Your task to perform on an android device: Clear the shopping cart on target.com. Image 0: 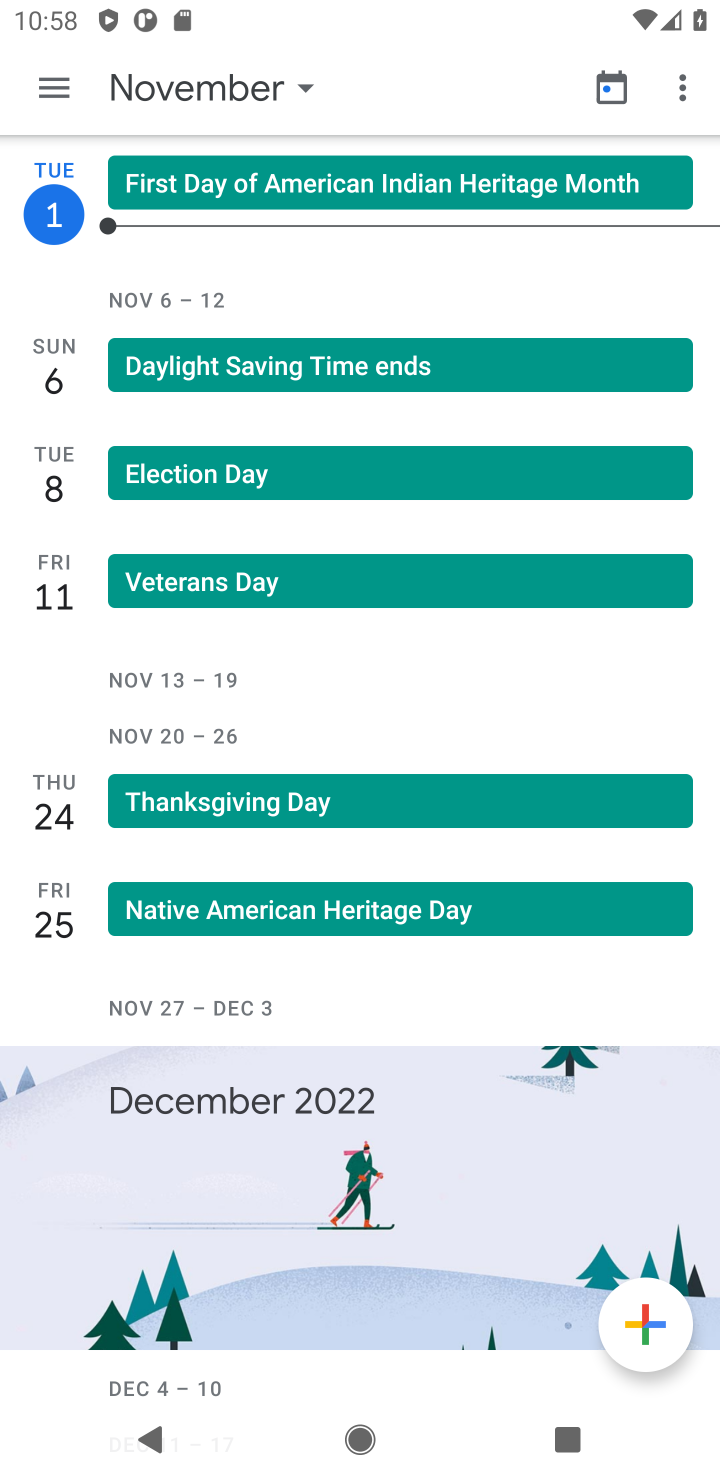
Step 0: press home button
Your task to perform on an android device: Clear the shopping cart on target.com. Image 1: 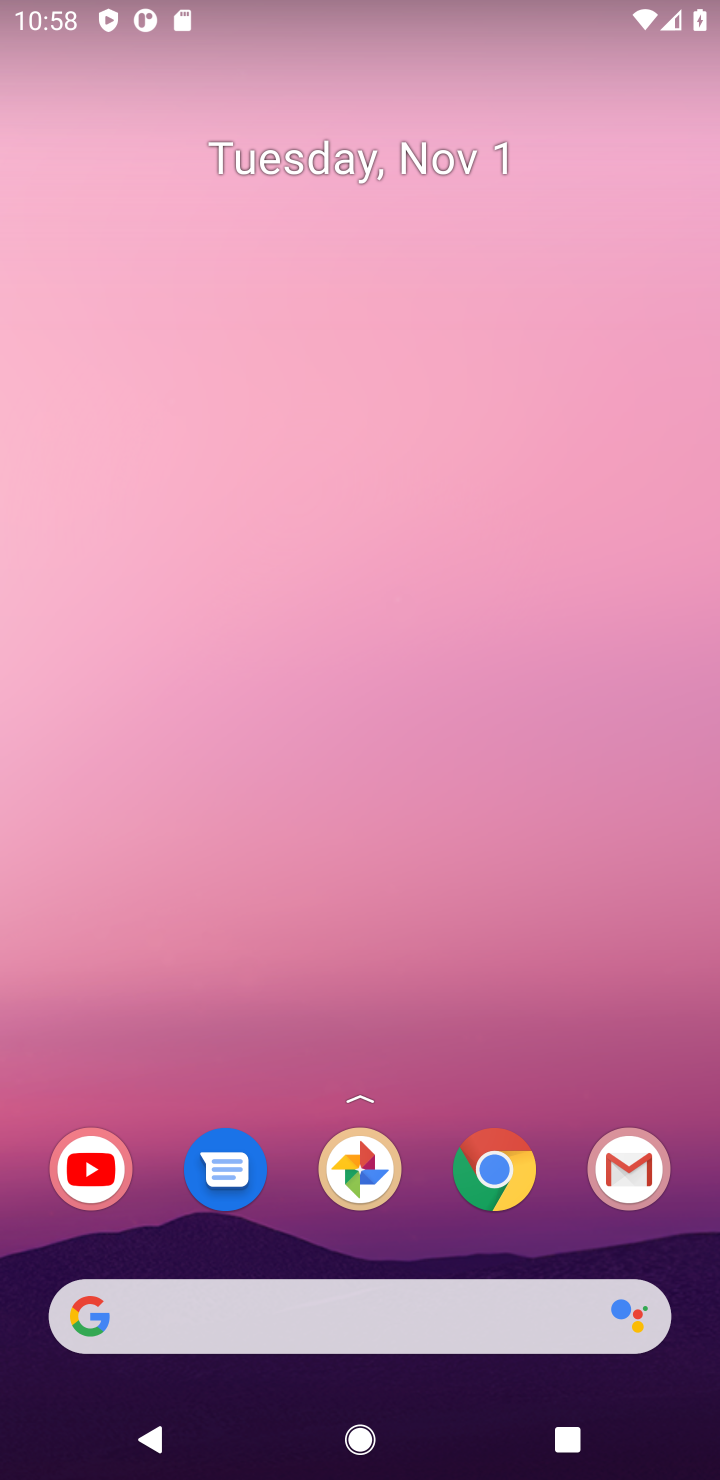
Step 1: click (487, 1179)
Your task to perform on an android device: Clear the shopping cart on target.com. Image 2: 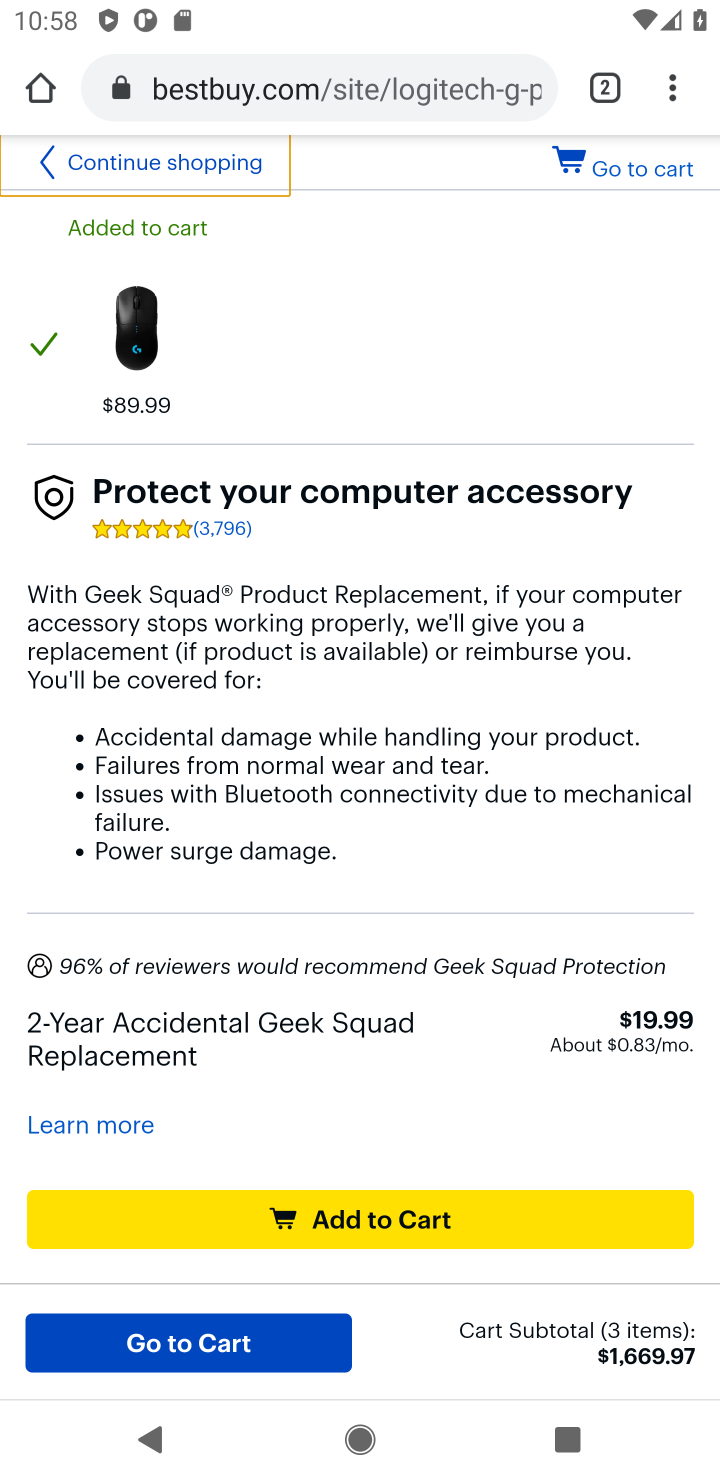
Step 2: click (312, 97)
Your task to perform on an android device: Clear the shopping cart on target.com. Image 3: 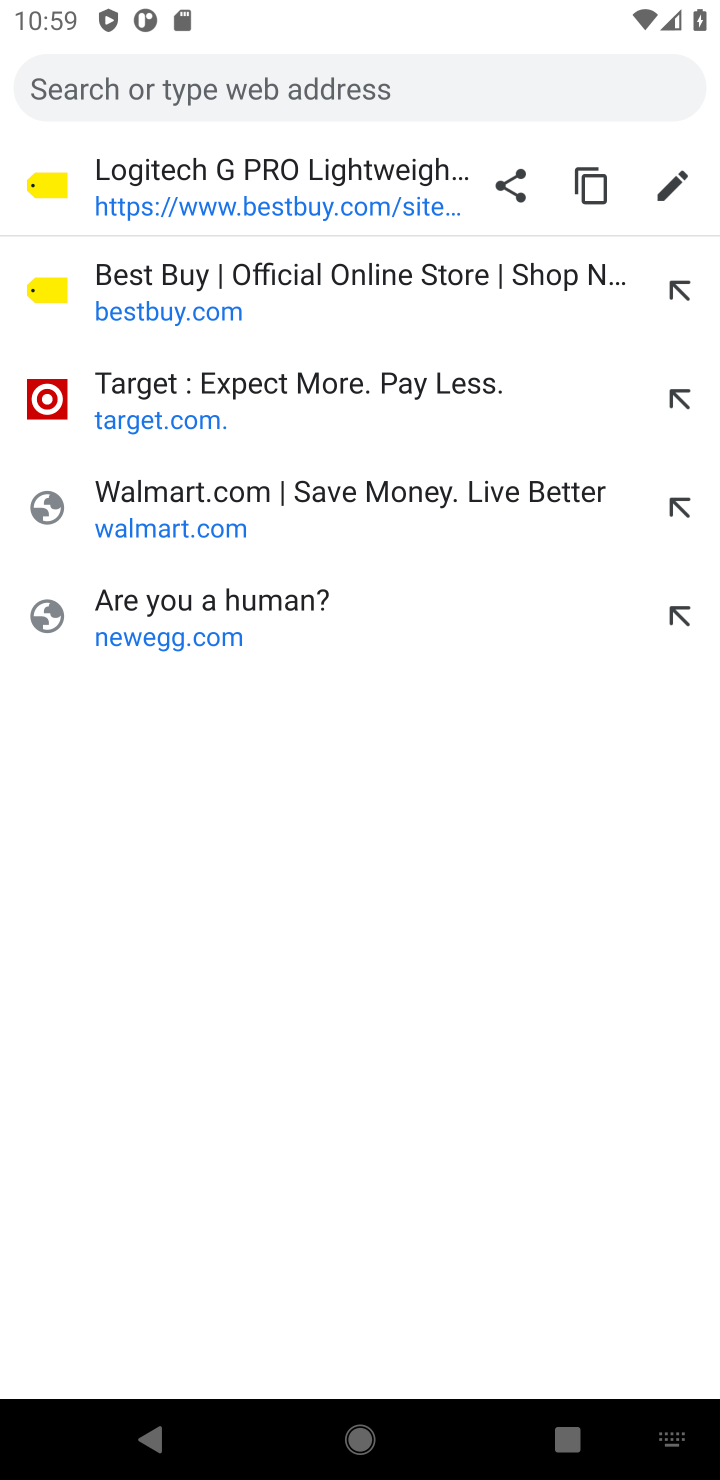
Step 3: type "target.com"
Your task to perform on an android device: Clear the shopping cart on target.com. Image 4: 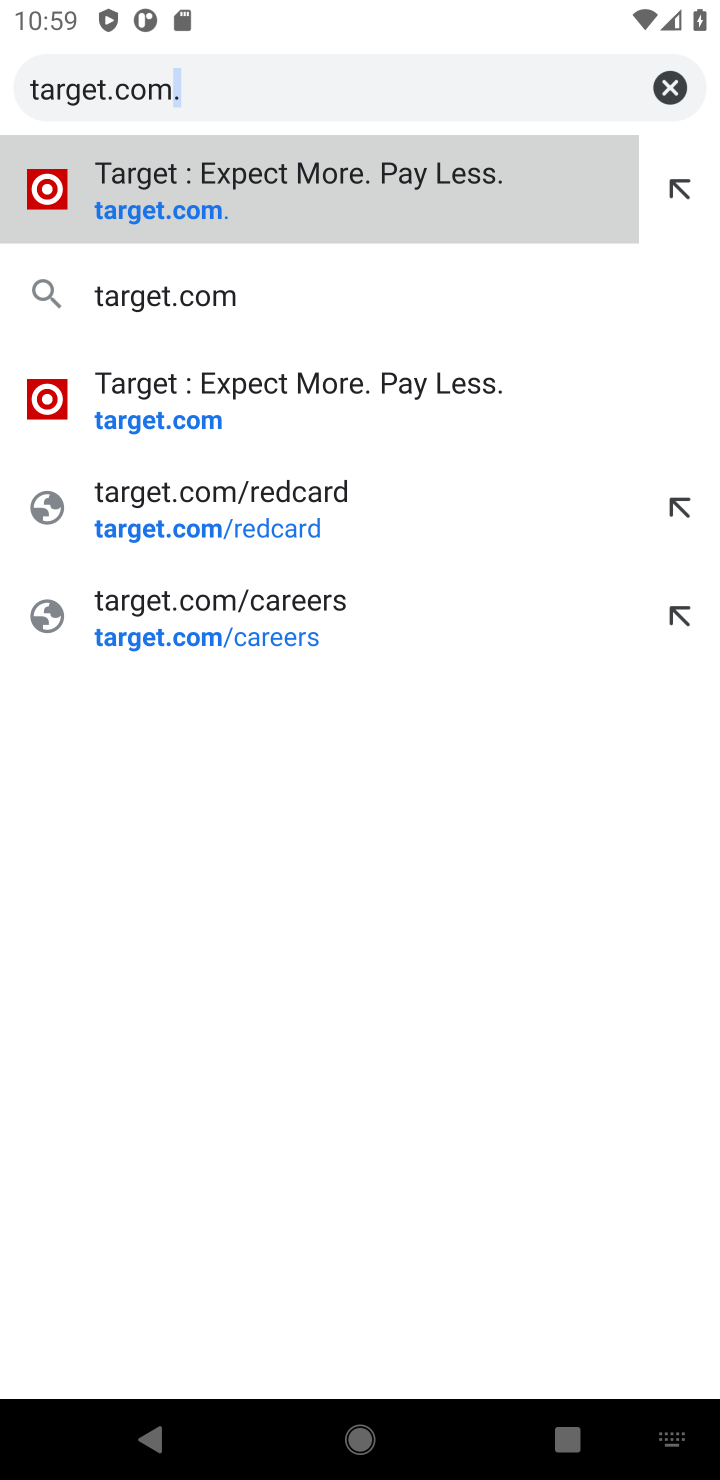
Step 4: press enter
Your task to perform on an android device: Clear the shopping cart on target.com. Image 5: 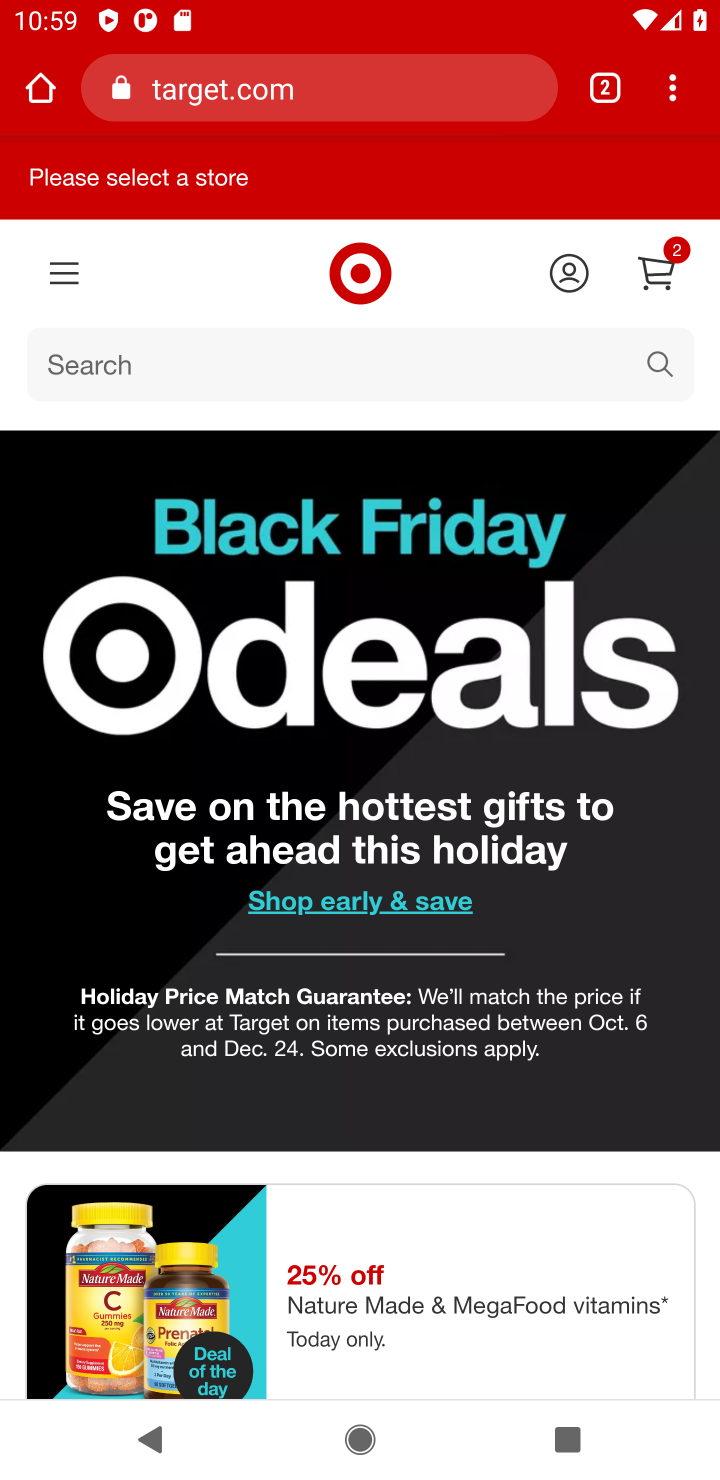
Step 5: click (659, 262)
Your task to perform on an android device: Clear the shopping cart on target.com. Image 6: 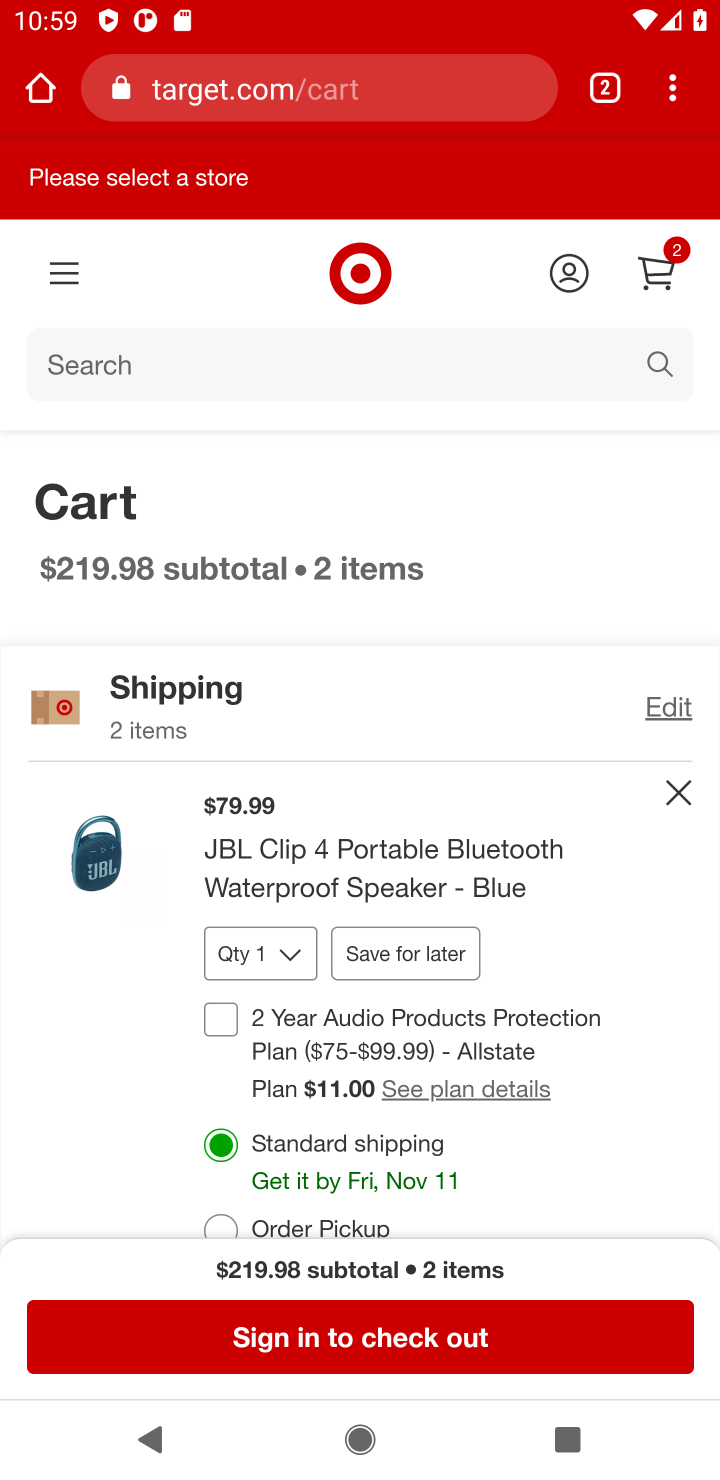
Step 6: click (673, 779)
Your task to perform on an android device: Clear the shopping cart on target.com. Image 7: 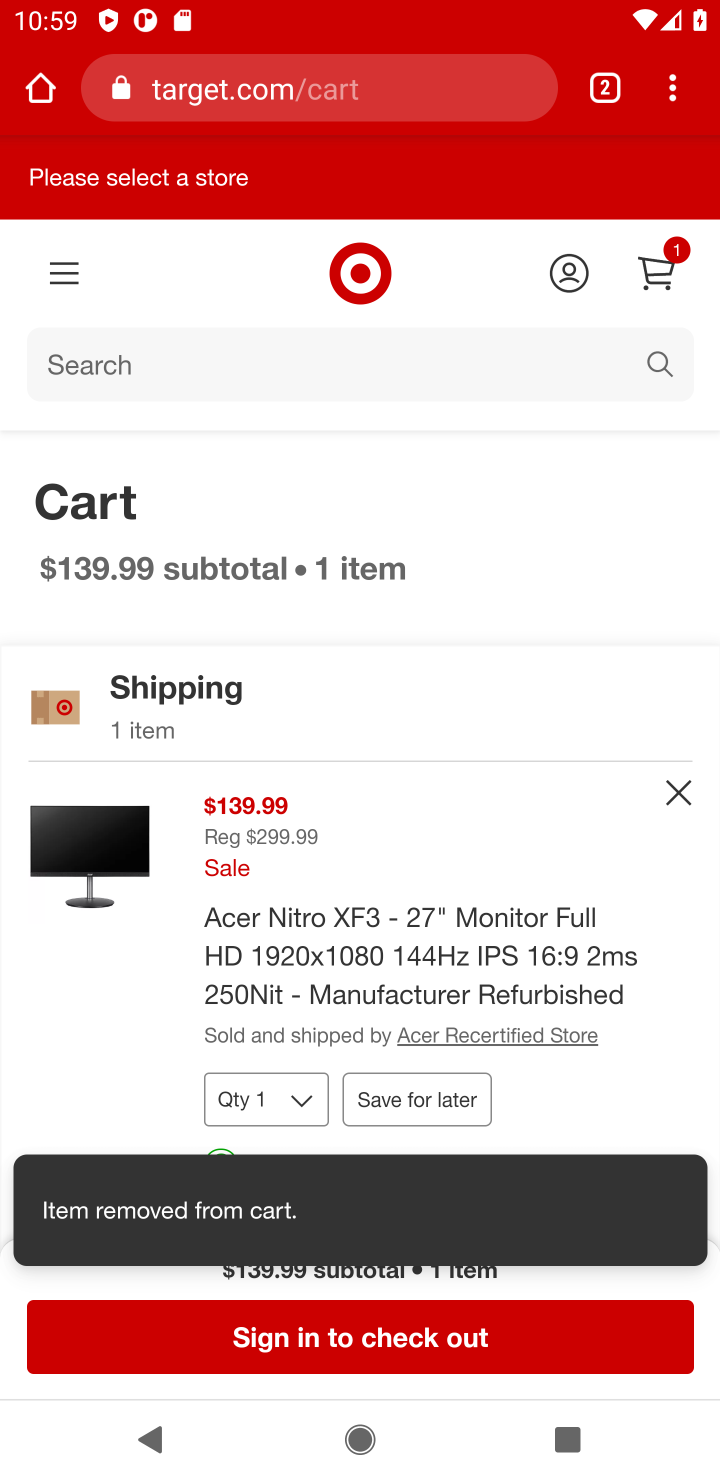
Step 7: click (675, 784)
Your task to perform on an android device: Clear the shopping cart on target.com. Image 8: 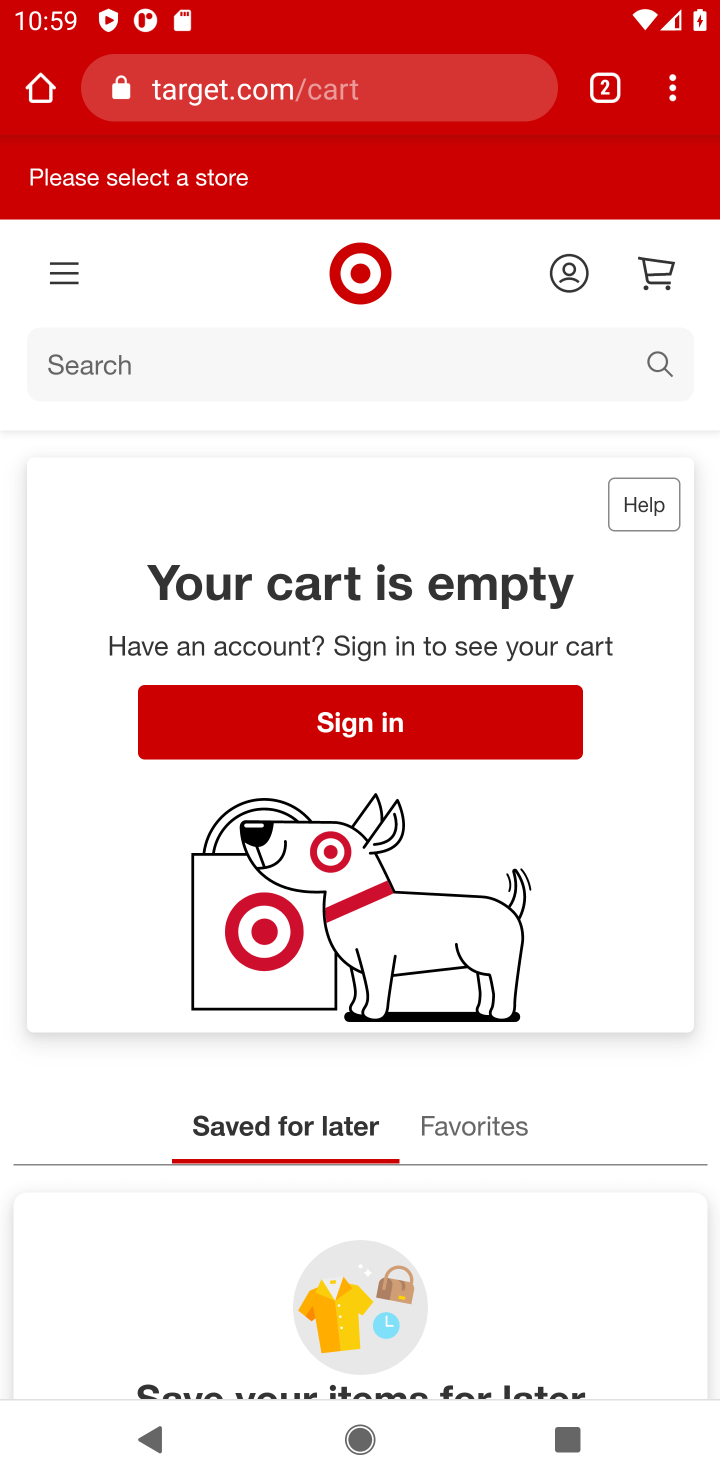
Step 8: task complete